Your task to perform on an android device: Search for floor lamps on article.com Image 0: 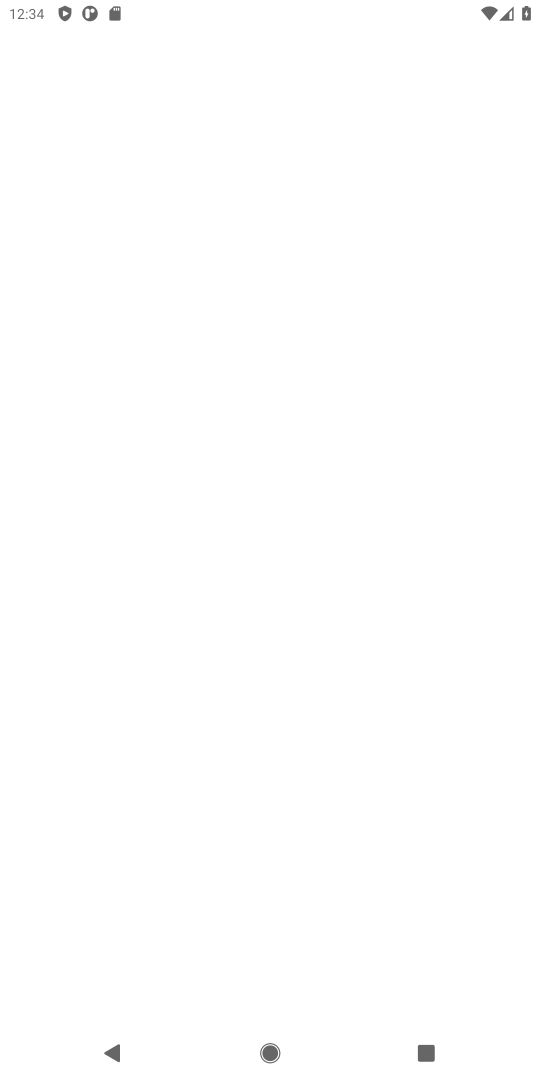
Step 0: press home button
Your task to perform on an android device: Search for floor lamps on article.com Image 1: 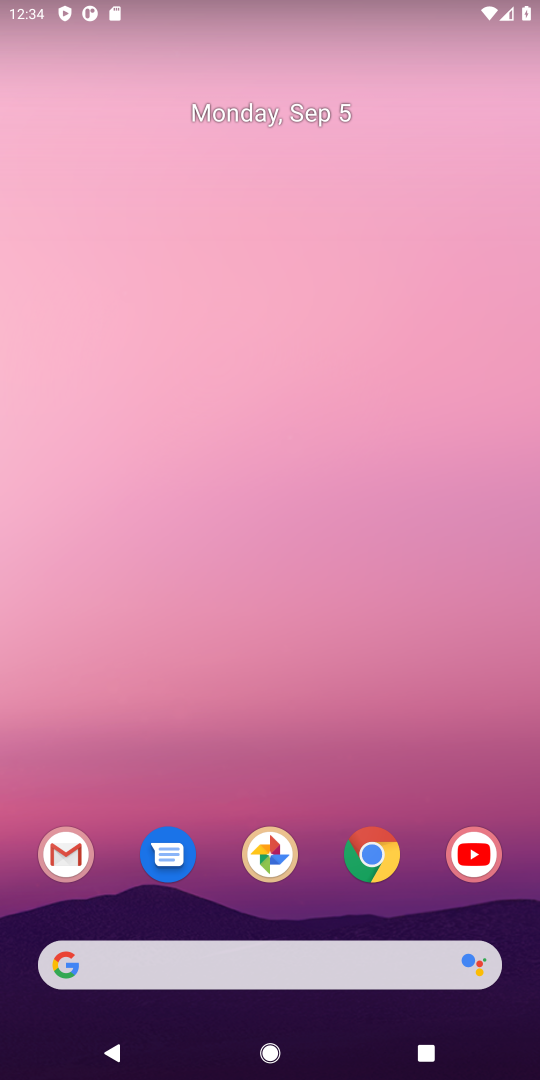
Step 1: click (359, 847)
Your task to perform on an android device: Search for floor lamps on article.com Image 2: 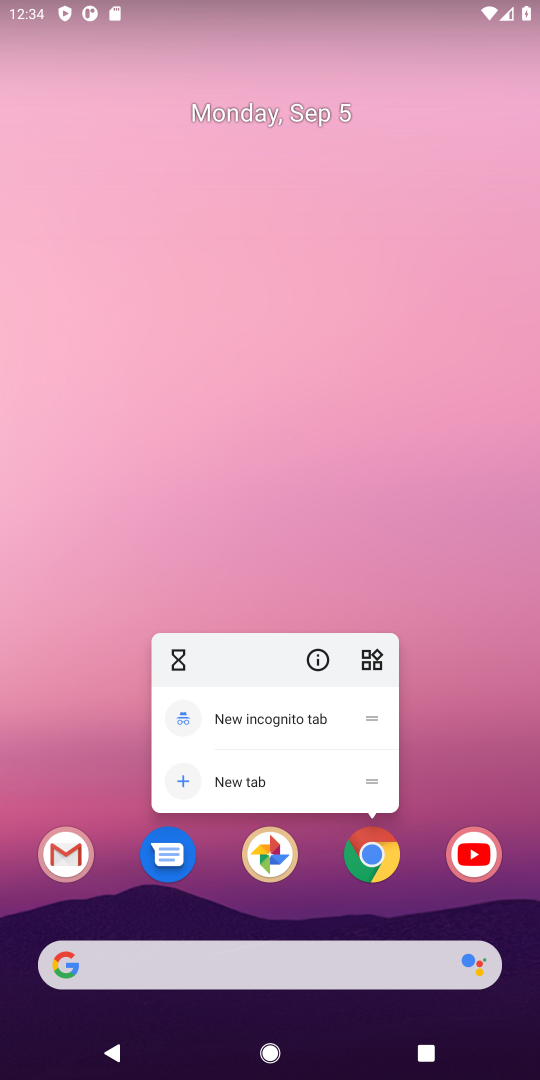
Step 2: click (359, 848)
Your task to perform on an android device: Search for floor lamps on article.com Image 3: 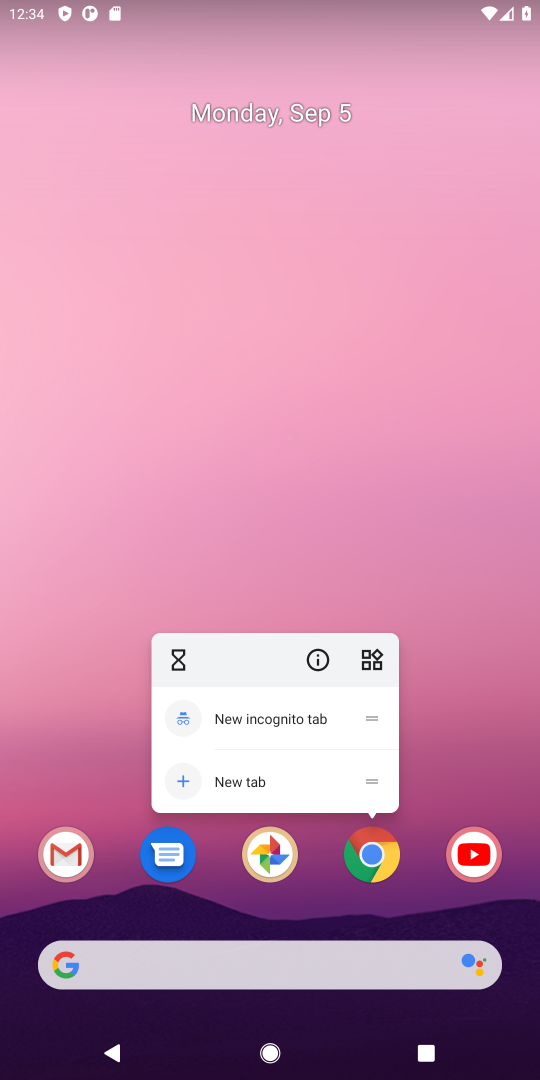
Step 3: click (379, 868)
Your task to perform on an android device: Search for floor lamps on article.com Image 4: 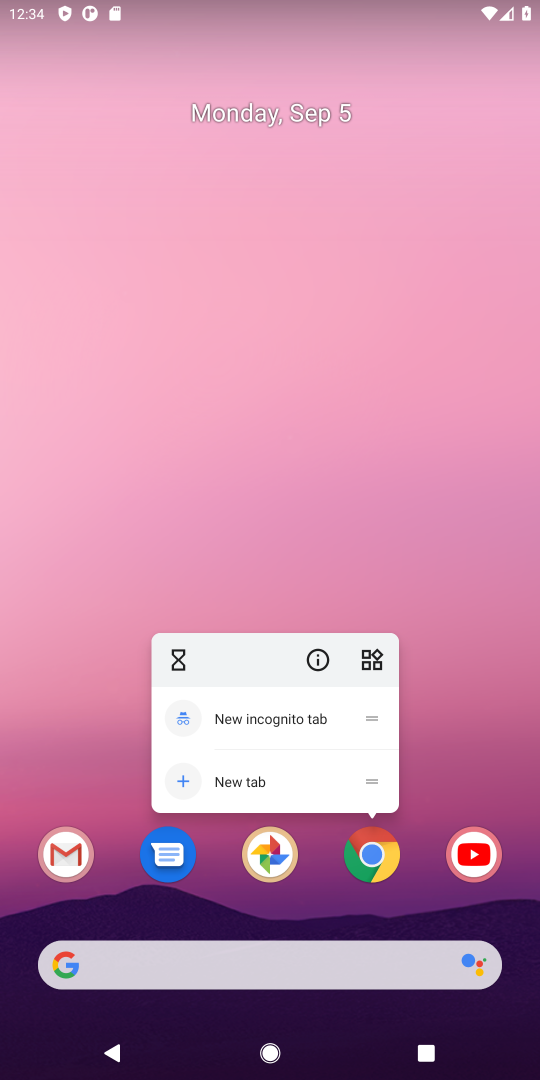
Step 4: click (373, 848)
Your task to perform on an android device: Search for floor lamps on article.com Image 5: 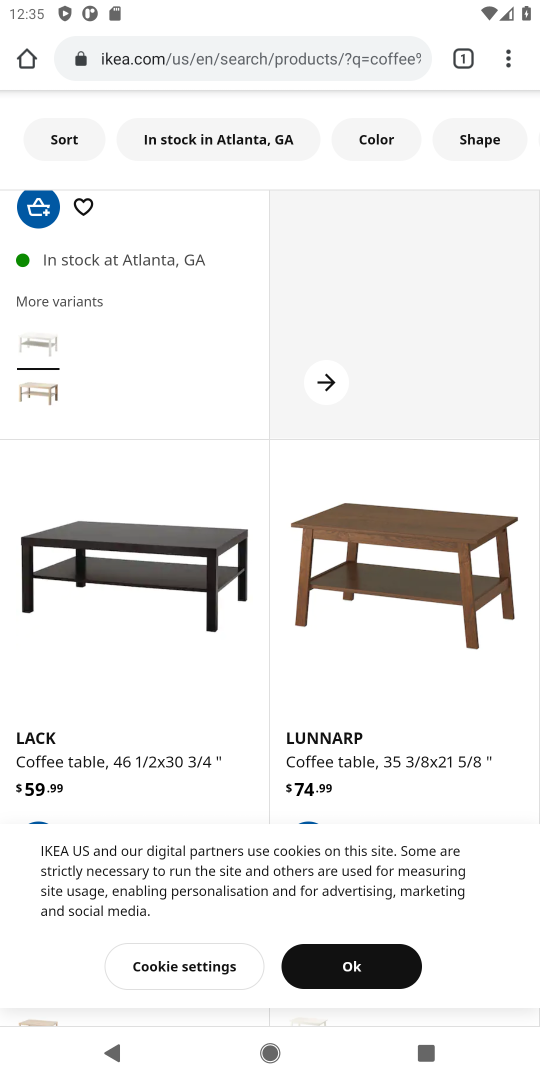
Step 5: click (357, 59)
Your task to perform on an android device: Search for floor lamps on article.com Image 6: 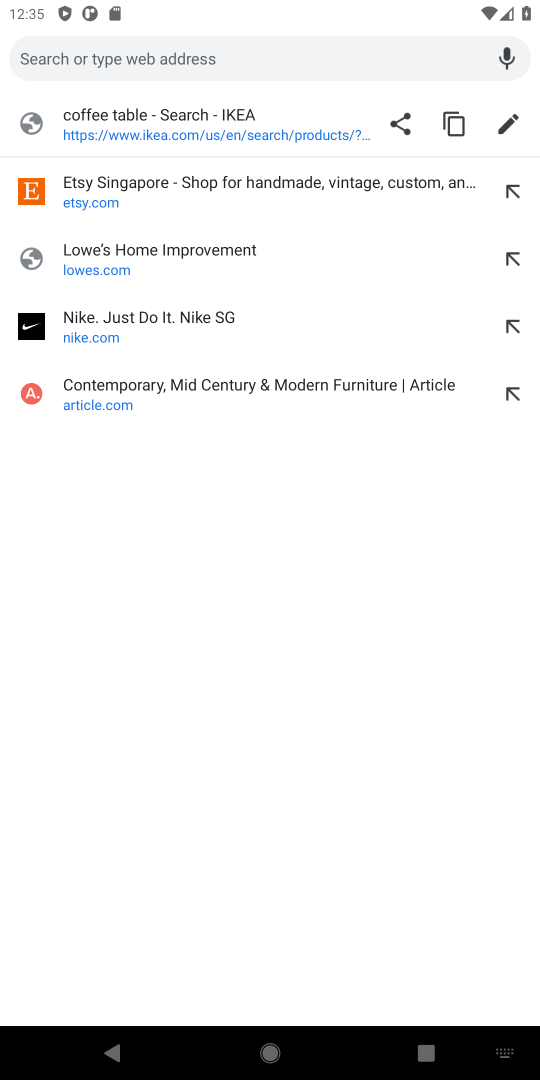
Step 6: type "article.com"
Your task to perform on an android device: Search for floor lamps on article.com Image 7: 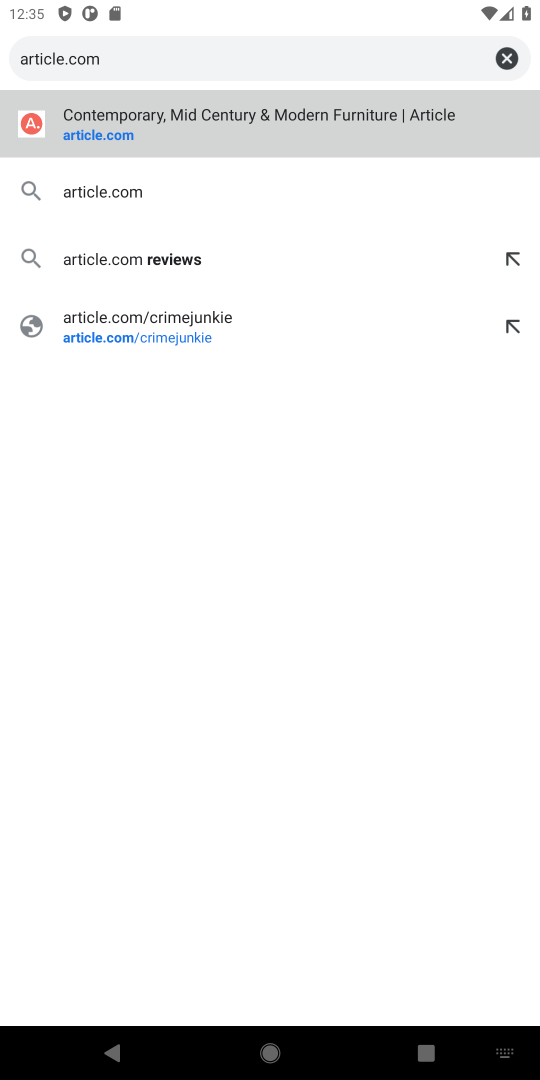
Step 7: press enter
Your task to perform on an android device: Search for floor lamps on article.com Image 8: 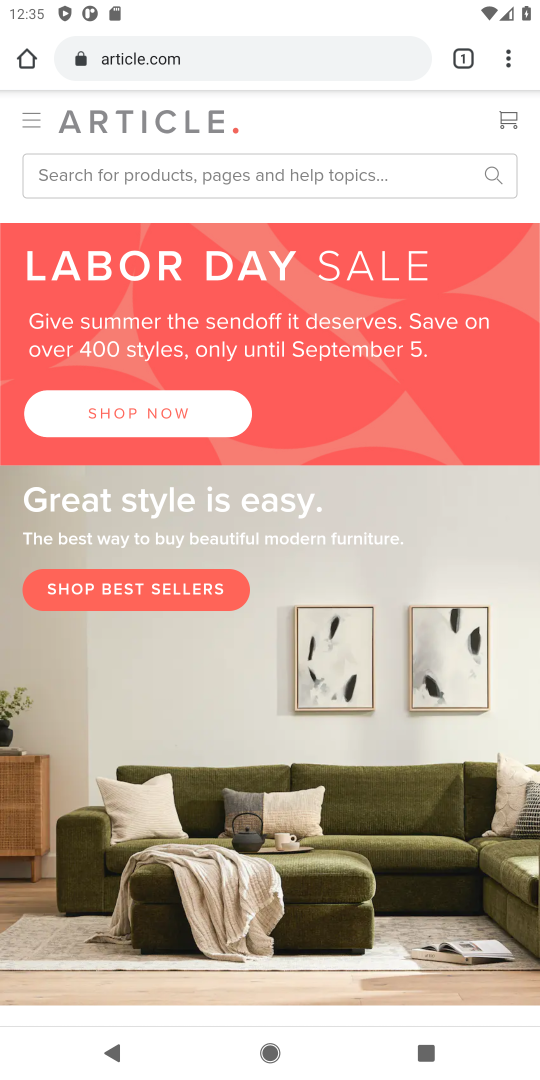
Step 8: click (315, 172)
Your task to perform on an android device: Search for floor lamps on article.com Image 9: 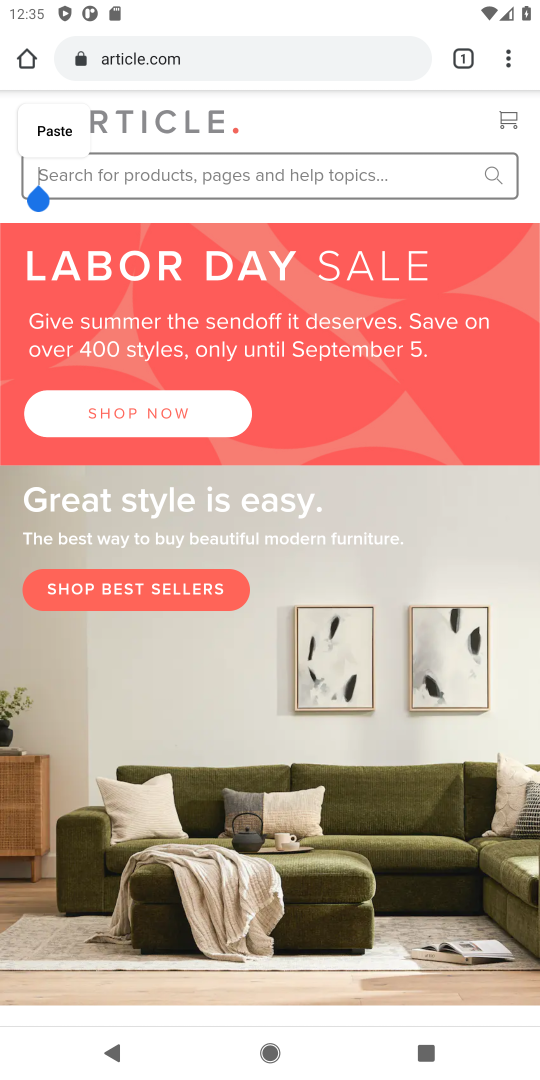
Step 9: type "floor lamps"
Your task to perform on an android device: Search for floor lamps on article.com Image 10: 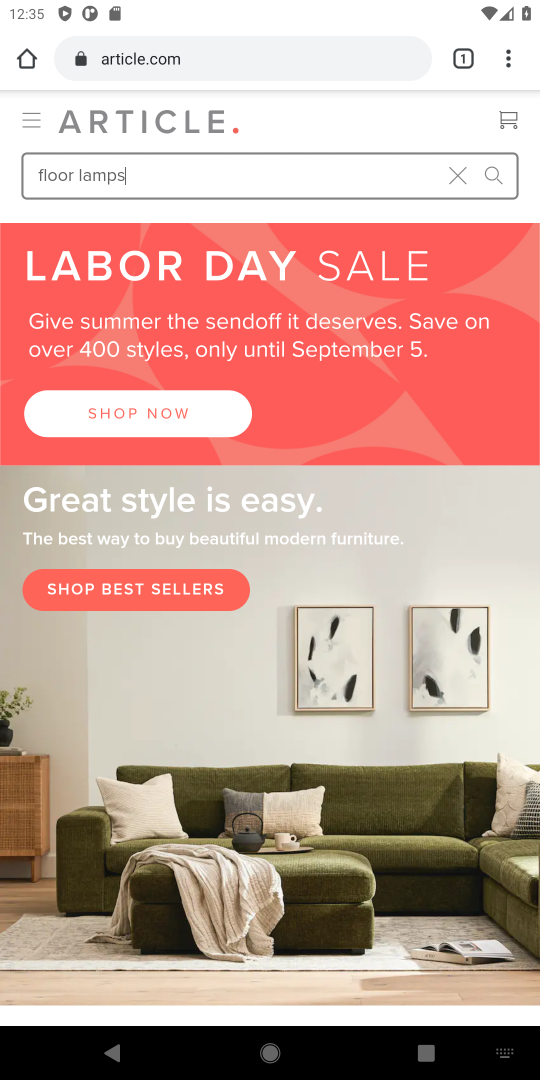
Step 10: press enter
Your task to perform on an android device: Search for floor lamps on article.com Image 11: 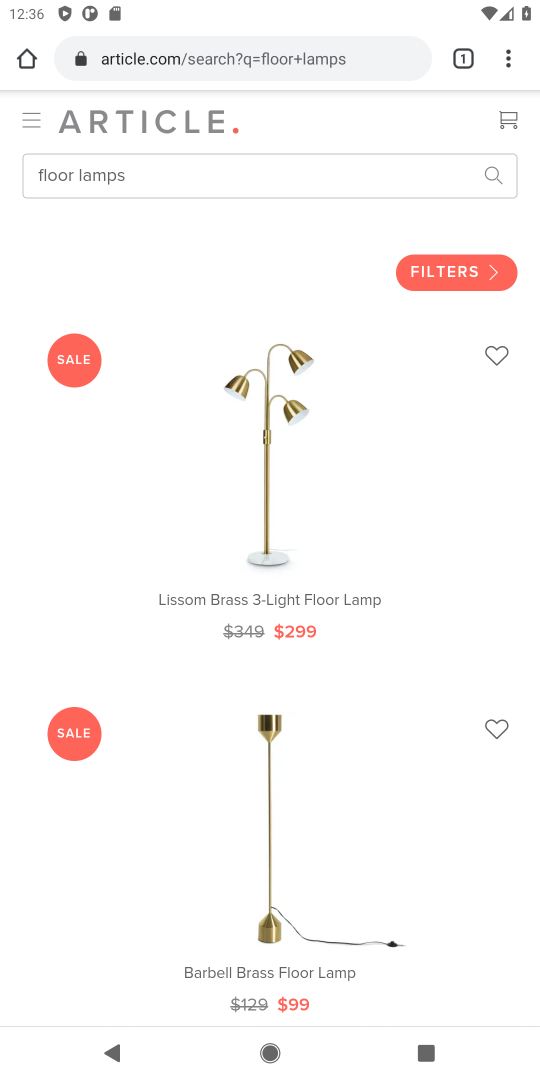
Step 11: task complete